Your task to perform on an android device: Open privacy settings Image 0: 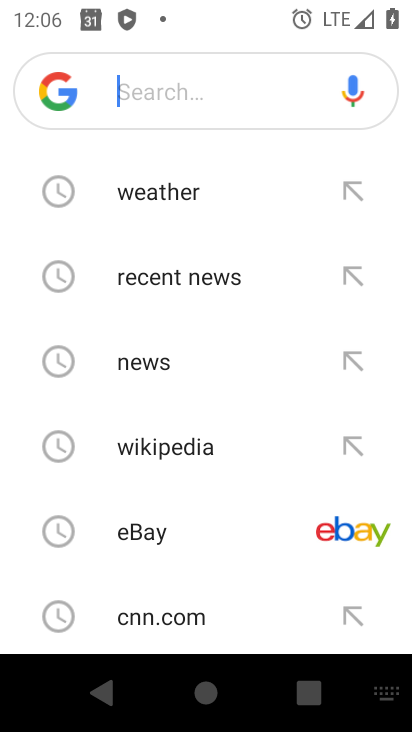
Step 0: press home button
Your task to perform on an android device: Open privacy settings Image 1: 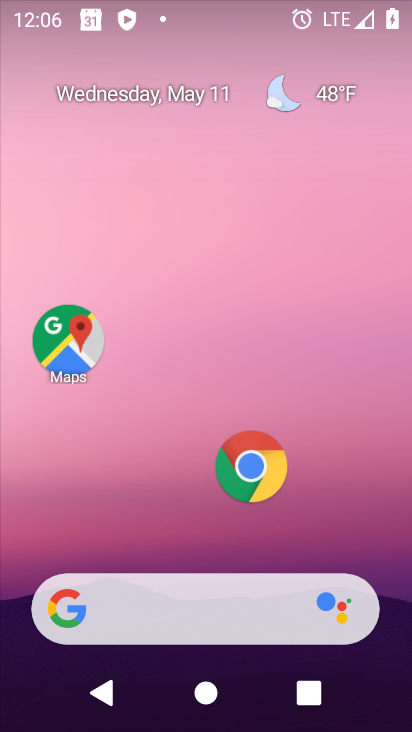
Step 1: click (246, 457)
Your task to perform on an android device: Open privacy settings Image 2: 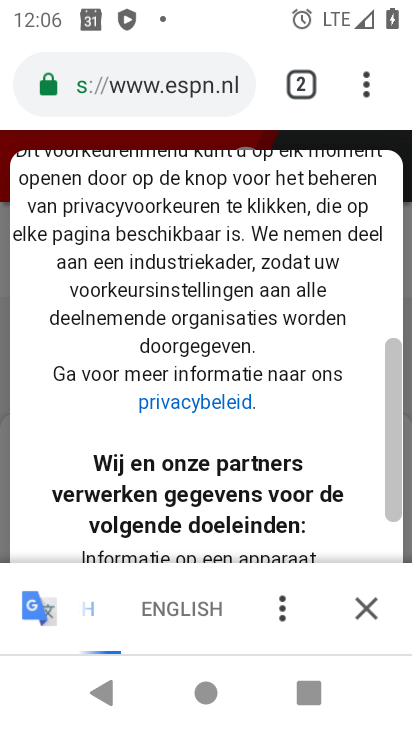
Step 2: drag from (361, 72) to (74, 507)
Your task to perform on an android device: Open privacy settings Image 3: 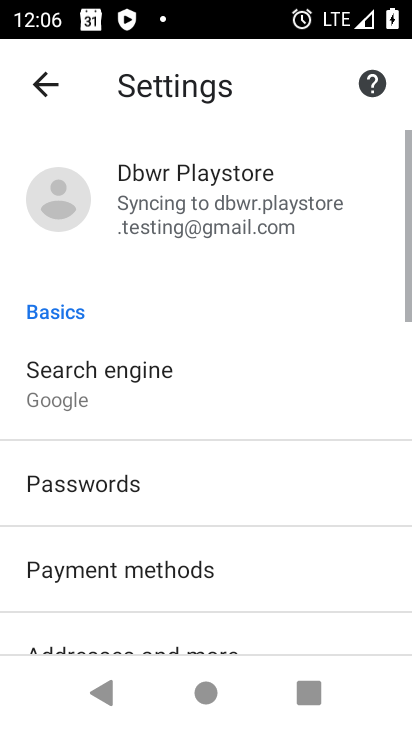
Step 3: drag from (142, 612) to (282, 62)
Your task to perform on an android device: Open privacy settings Image 4: 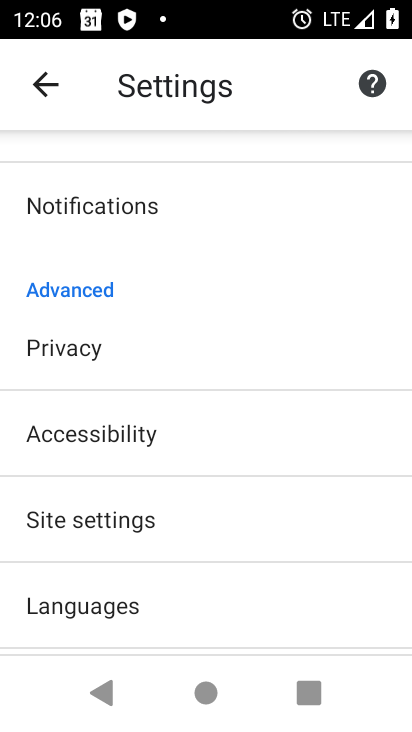
Step 4: click (50, 350)
Your task to perform on an android device: Open privacy settings Image 5: 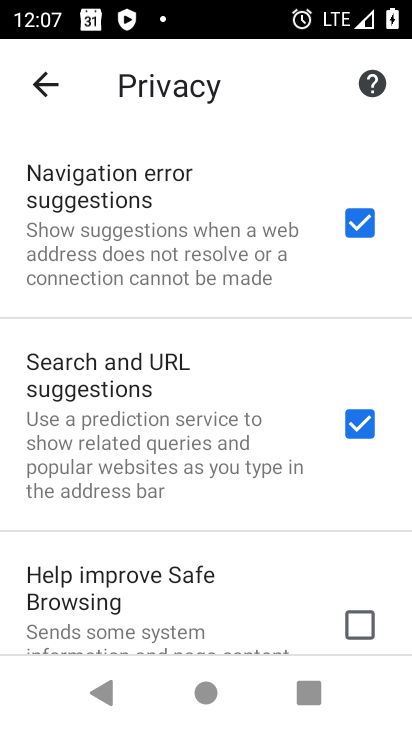
Step 5: task complete